Your task to perform on an android device: check battery use Image 0: 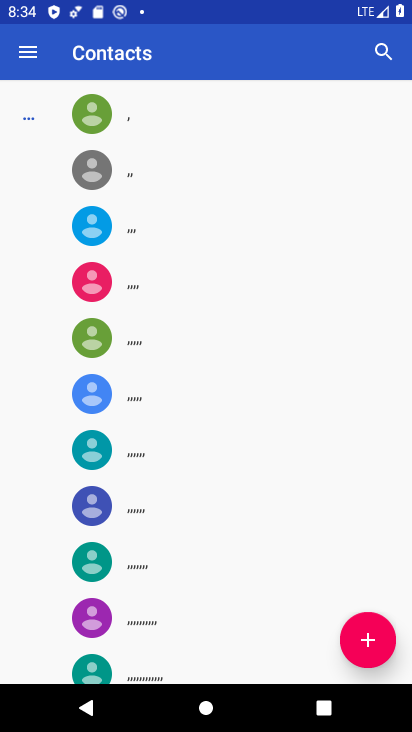
Step 0: press back button
Your task to perform on an android device: check battery use Image 1: 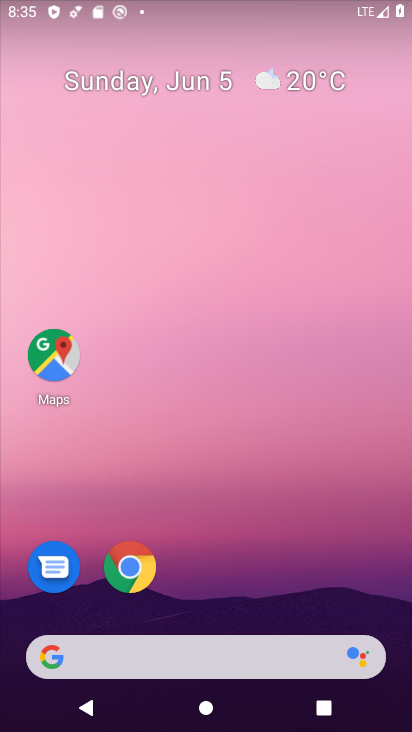
Step 1: drag from (296, 566) to (182, 55)
Your task to perform on an android device: check battery use Image 2: 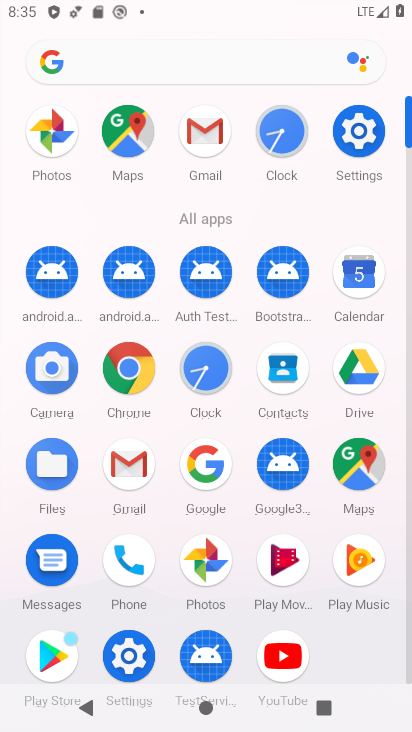
Step 2: click (359, 132)
Your task to perform on an android device: check battery use Image 3: 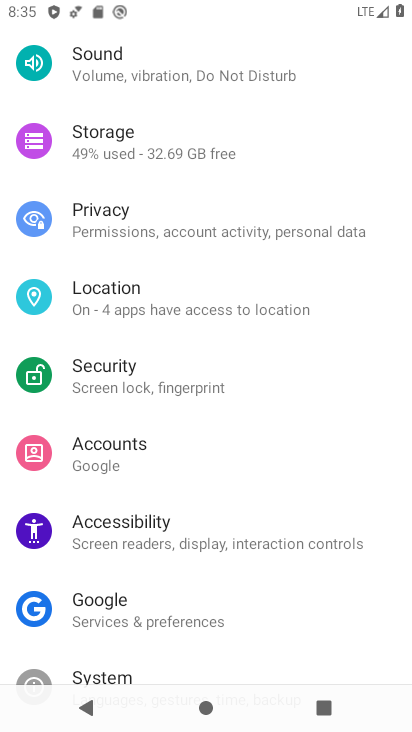
Step 3: drag from (184, 347) to (216, 440)
Your task to perform on an android device: check battery use Image 4: 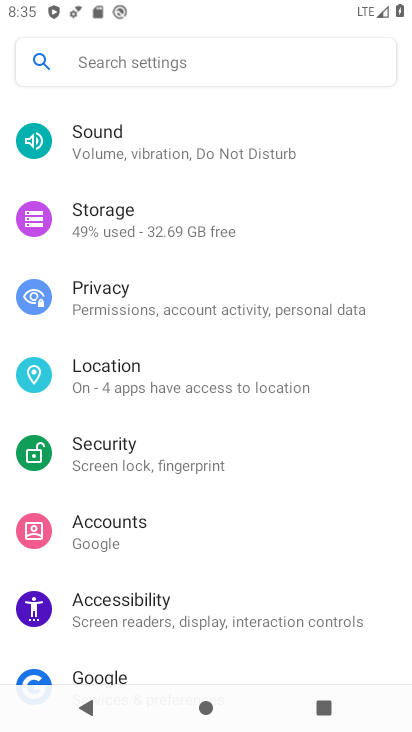
Step 4: drag from (225, 255) to (240, 376)
Your task to perform on an android device: check battery use Image 5: 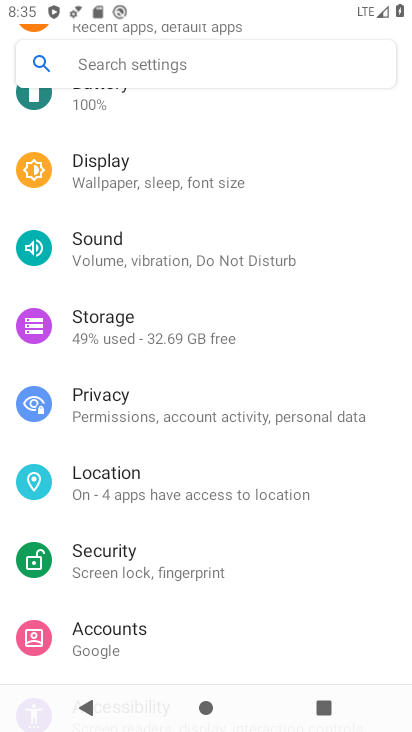
Step 5: drag from (187, 225) to (246, 350)
Your task to perform on an android device: check battery use Image 6: 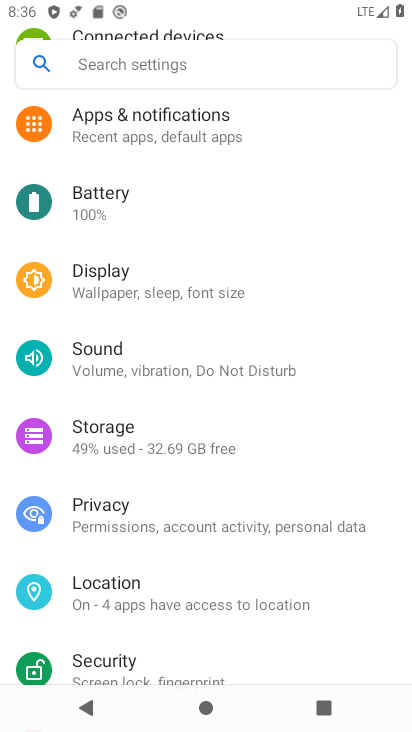
Step 6: click (121, 213)
Your task to perform on an android device: check battery use Image 7: 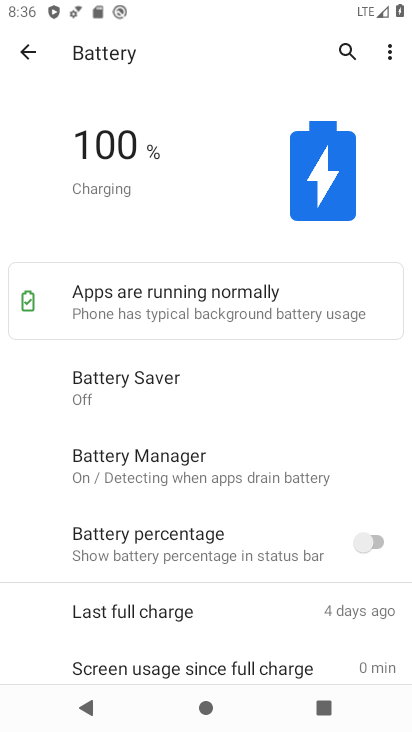
Step 7: click (388, 53)
Your task to perform on an android device: check battery use Image 8: 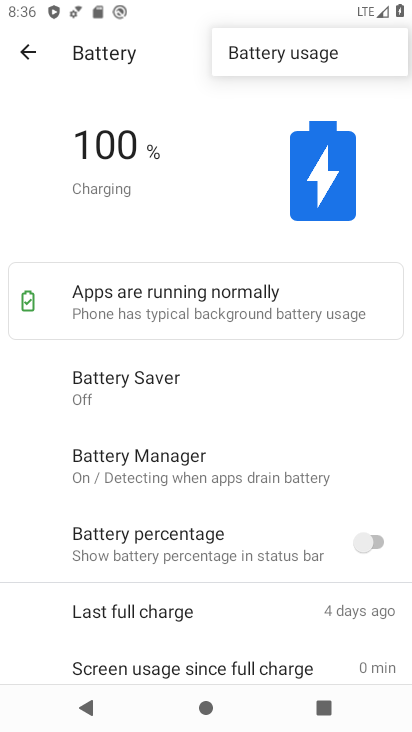
Step 8: click (308, 66)
Your task to perform on an android device: check battery use Image 9: 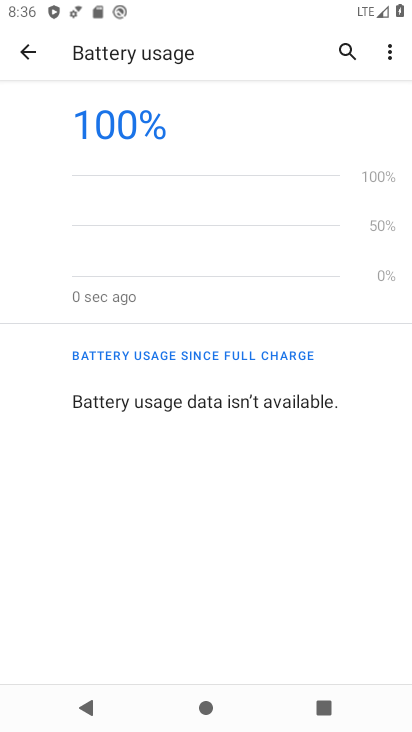
Step 9: task complete